Your task to perform on an android device: Open Google Chrome Image 0: 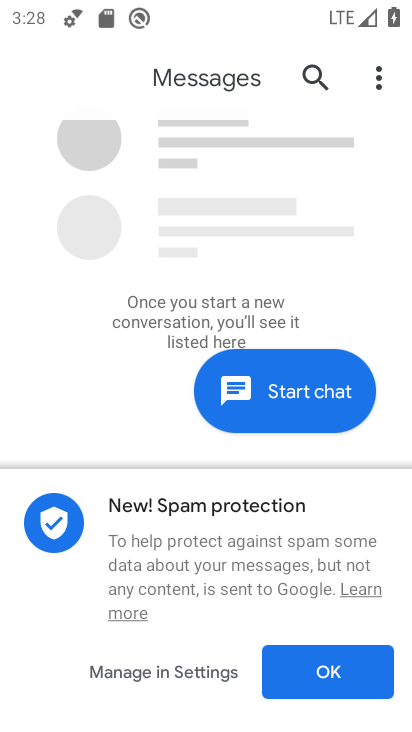
Step 0: press home button
Your task to perform on an android device: Open Google Chrome Image 1: 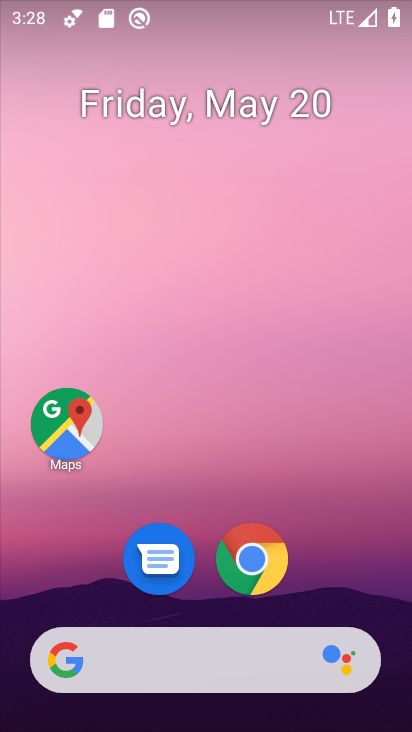
Step 1: click (261, 561)
Your task to perform on an android device: Open Google Chrome Image 2: 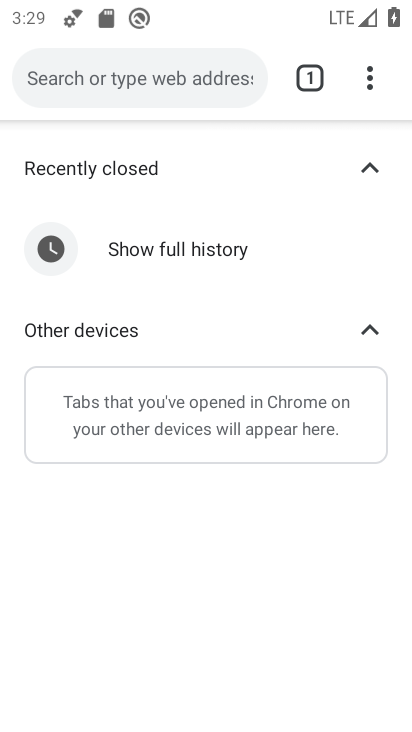
Step 2: click (364, 83)
Your task to perform on an android device: Open Google Chrome Image 3: 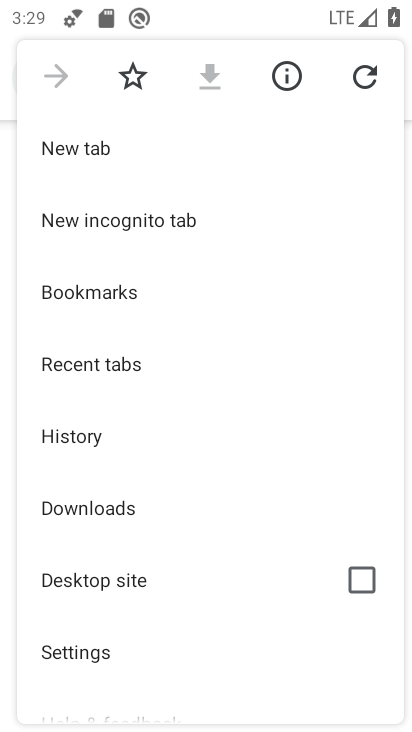
Step 3: click (160, 149)
Your task to perform on an android device: Open Google Chrome Image 4: 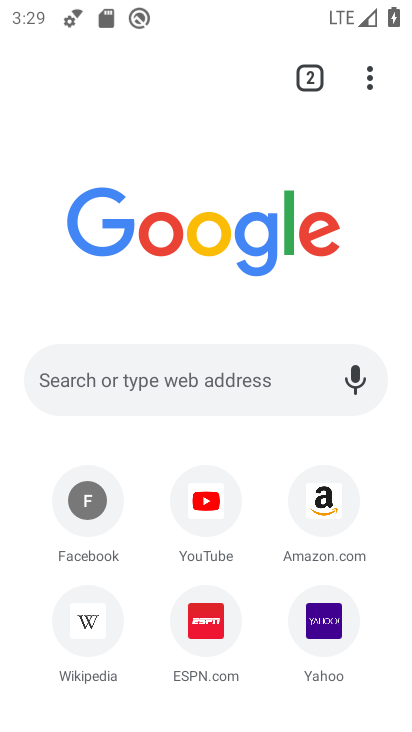
Step 4: task complete